Your task to perform on an android device: Go to accessibility settings Image 0: 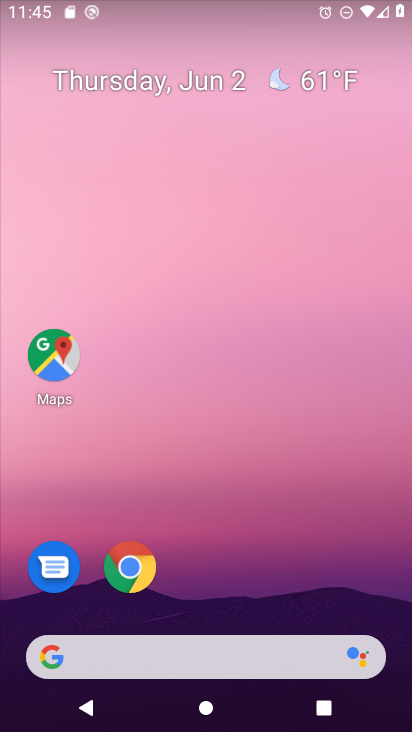
Step 0: drag from (297, 587) to (204, 247)
Your task to perform on an android device: Go to accessibility settings Image 1: 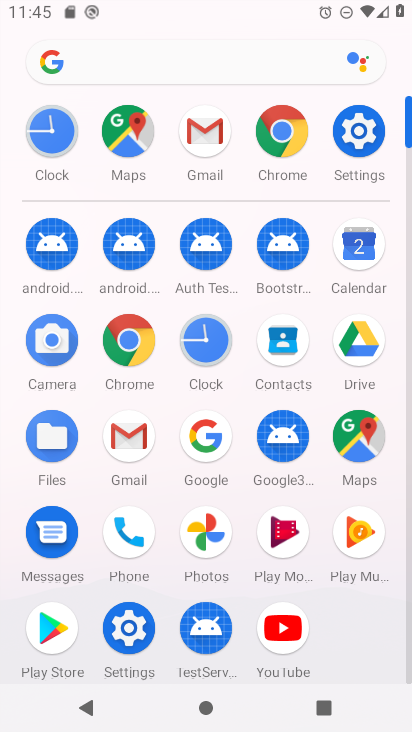
Step 1: click (358, 136)
Your task to perform on an android device: Go to accessibility settings Image 2: 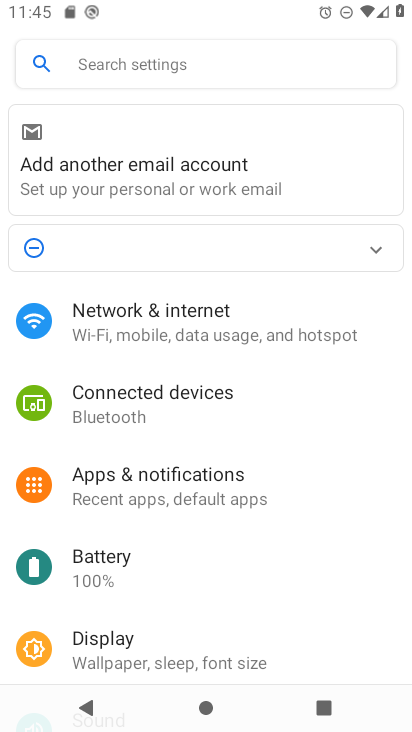
Step 2: drag from (217, 526) to (245, 164)
Your task to perform on an android device: Go to accessibility settings Image 3: 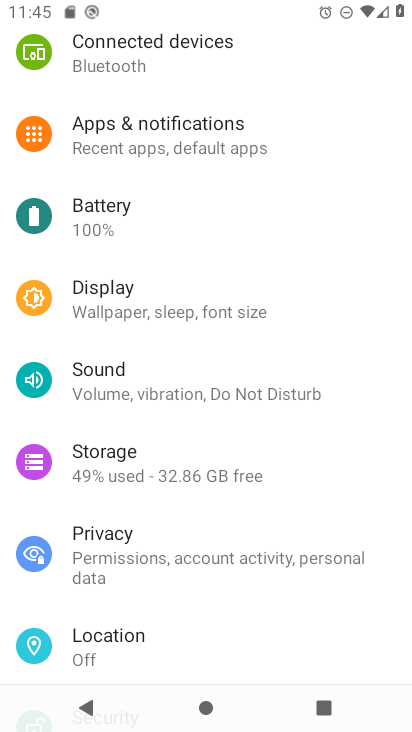
Step 3: drag from (236, 542) to (255, 268)
Your task to perform on an android device: Go to accessibility settings Image 4: 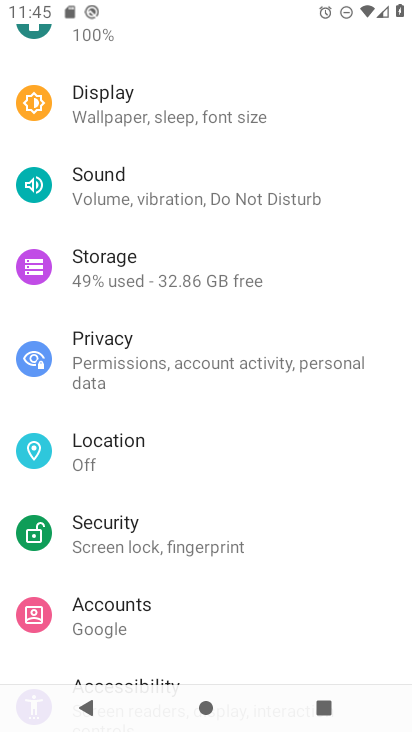
Step 4: click (261, 231)
Your task to perform on an android device: Go to accessibility settings Image 5: 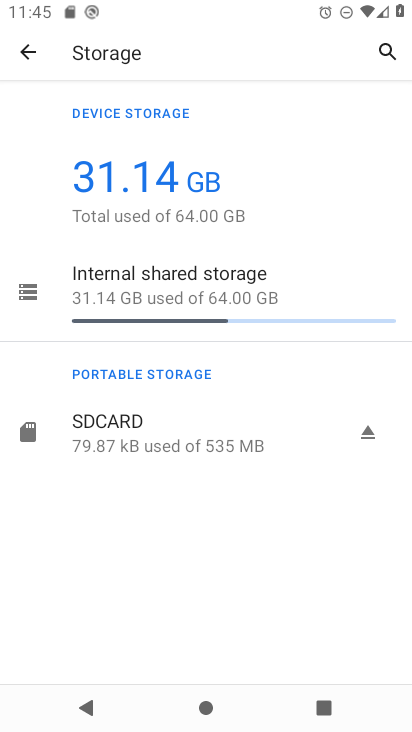
Step 5: click (28, 51)
Your task to perform on an android device: Go to accessibility settings Image 6: 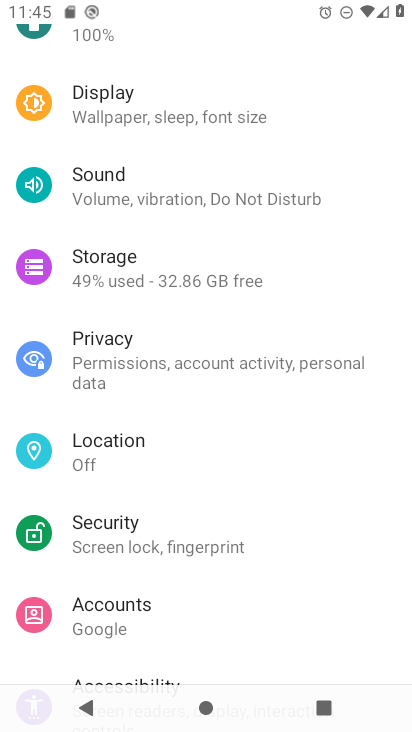
Step 6: drag from (223, 513) to (233, 28)
Your task to perform on an android device: Go to accessibility settings Image 7: 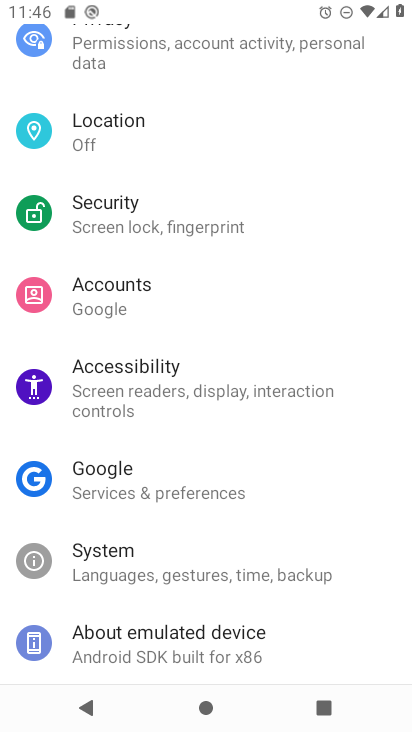
Step 7: click (149, 376)
Your task to perform on an android device: Go to accessibility settings Image 8: 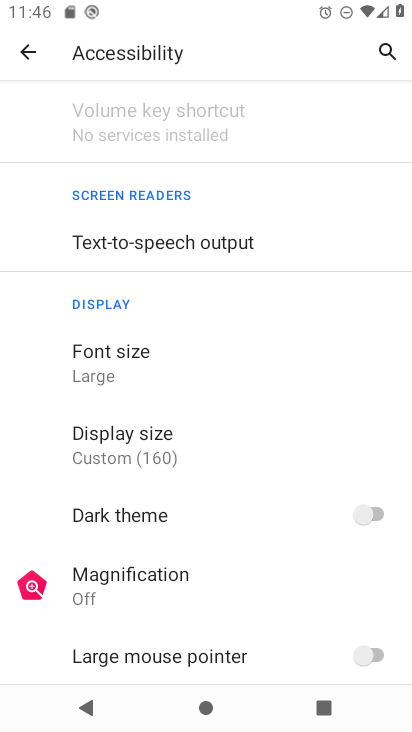
Step 8: task complete